Your task to perform on an android device: change notification settings in the gmail app Image 0: 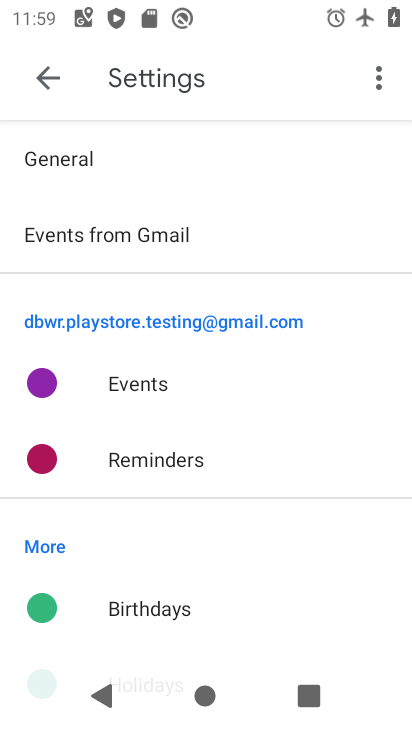
Step 0: press home button
Your task to perform on an android device: change notification settings in the gmail app Image 1: 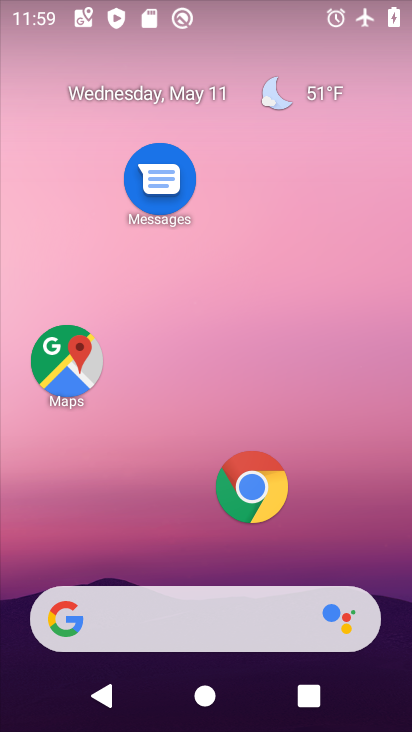
Step 1: drag from (209, 504) to (243, 222)
Your task to perform on an android device: change notification settings in the gmail app Image 2: 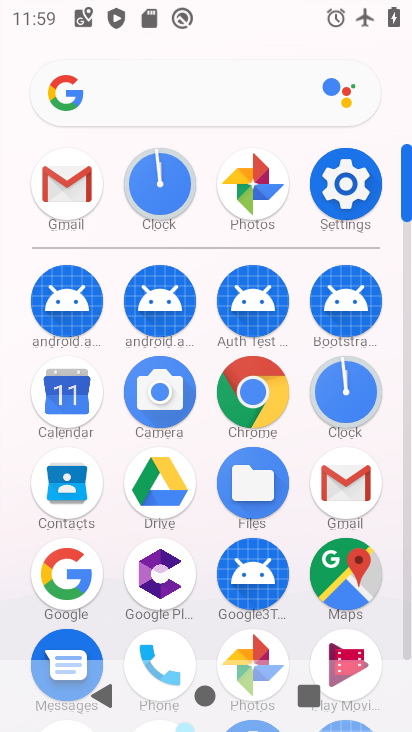
Step 2: click (67, 170)
Your task to perform on an android device: change notification settings in the gmail app Image 3: 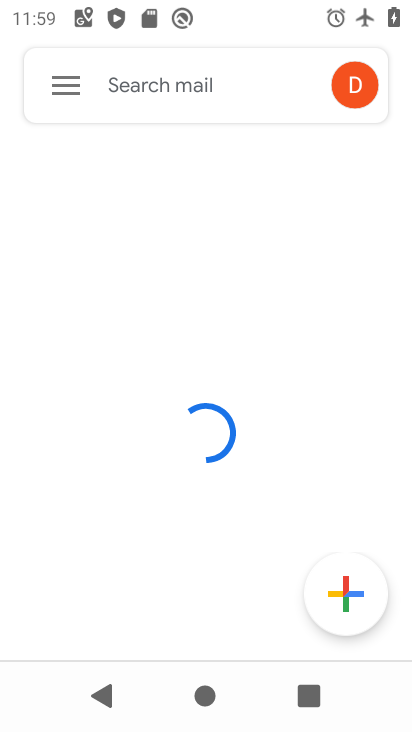
Step 3: click (61, 97)
Your task to perform on an android device: change notification settings in the gmail app Image 4: 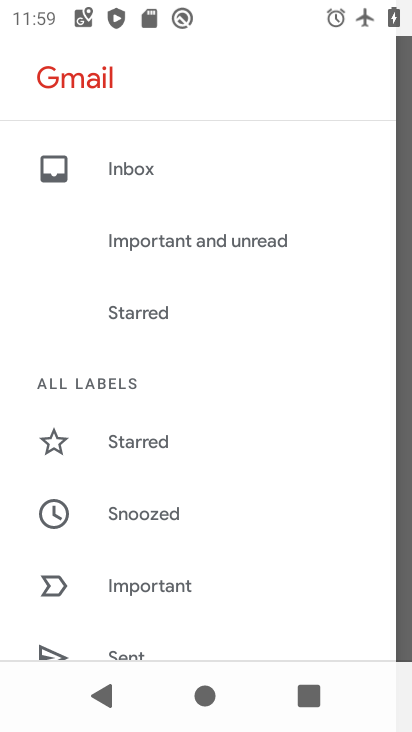
Step 4: drag from (154, 595) to (169, 283)
Your task to perform on an android device: change notification settings in the gmail app Image 5: 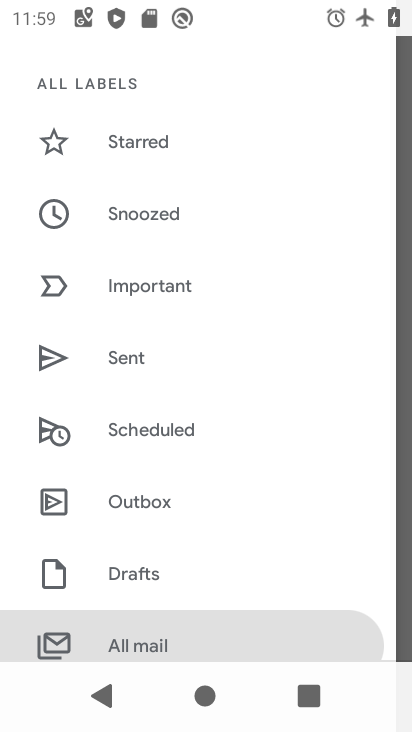
Step 5: drag from (186, 488) to (181, 243)
Your task to perform on an android device: change notification settings in the gmail app Image 6: 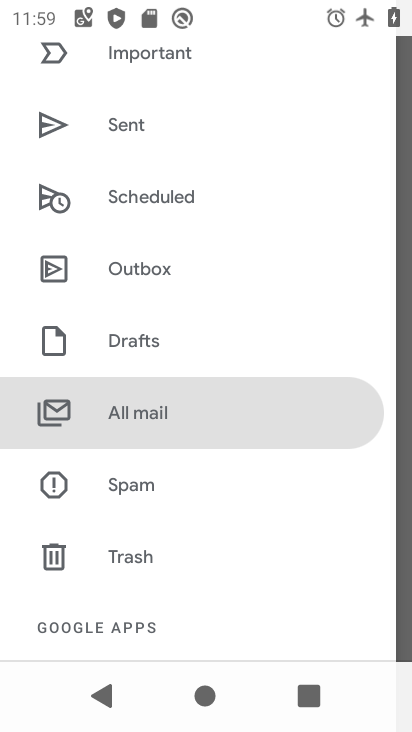
Step 6: drag from (161, 524) to (138, 240)
Your task to perform on an android device: change notification settings in the gmail app Image 7: 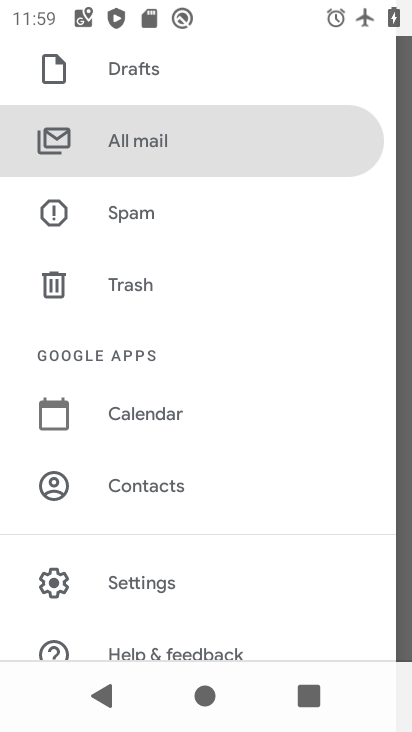
Step 7: click (145, 565)
Your task to perform on an android device: change notification settings in the gmail app Image 8: 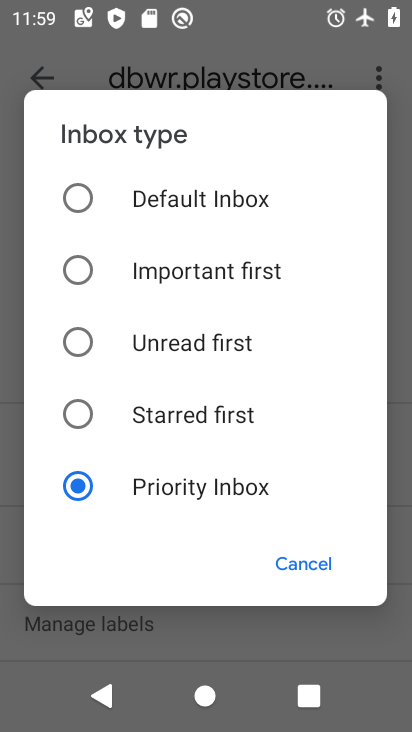
Step 8: click (266, 556)
Your task to perform on an android device: change notification settings in the gmail app Image 9: 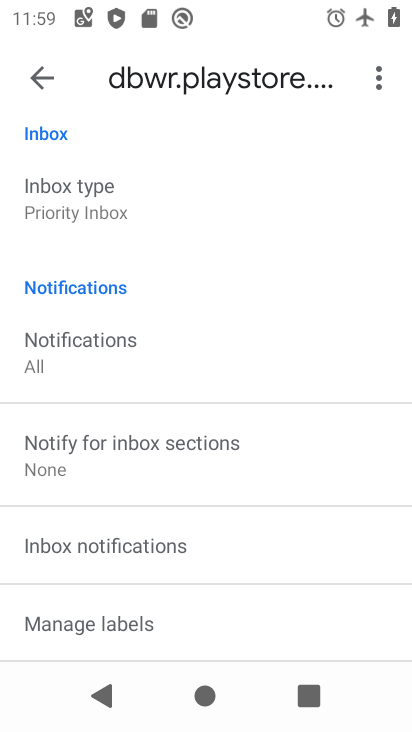
Step 9: drag from (160, 608) to (154, 463)
Your task to perform on an android device: change notification settings in the gmail app Image 10: 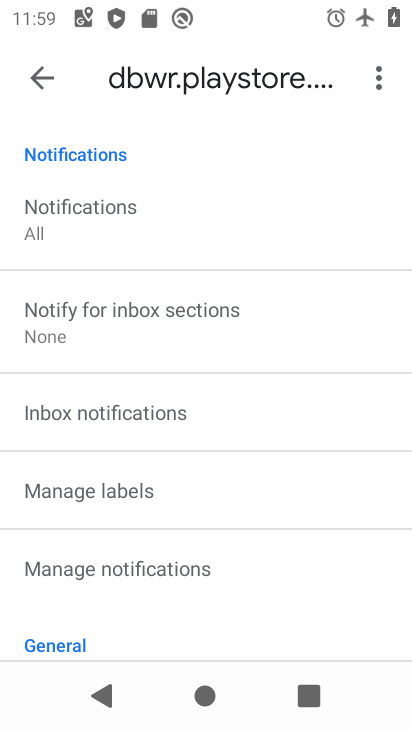
Step 10: click (151, 540)
Your task to perform on an android device: change notification settings in the gmail app Image 11: 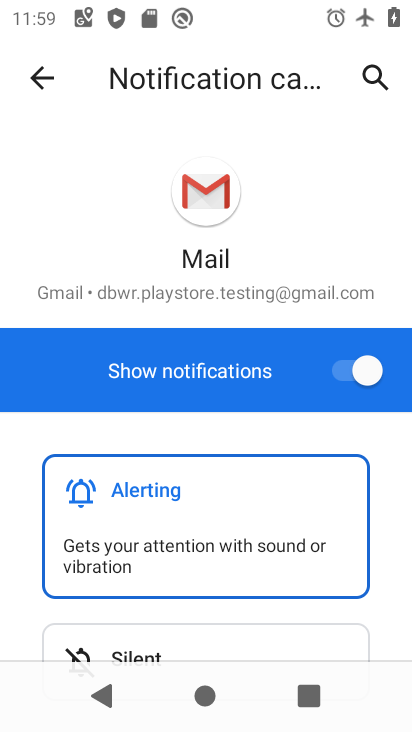
Step 11: click (345, 363)
Your task to perform on an android device: change notification settings in the gmail app Image 12: 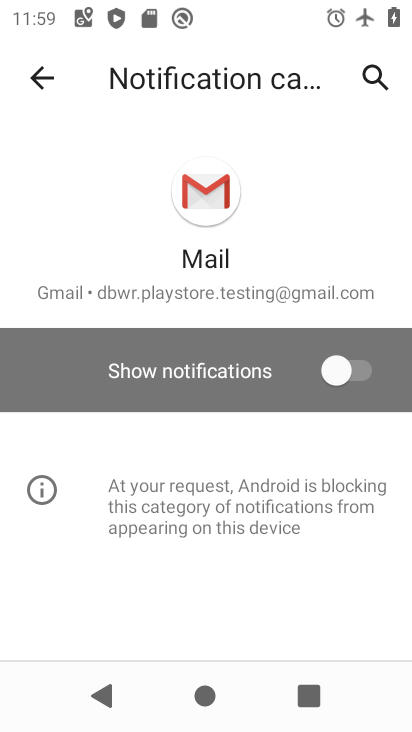
Step 12: task complete